Your task to perform on an android device: open the mobile data screen to see how much data has been used Image 0: 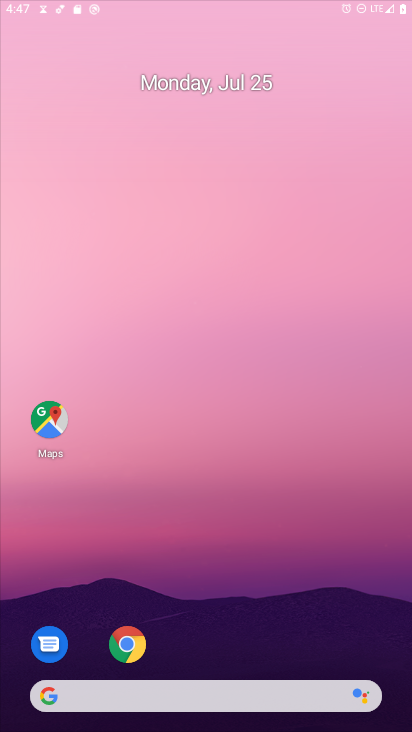
Step 0: press home button
Your task to perform on an android device: open the mobile data screen to see how much data has been used Image 1: 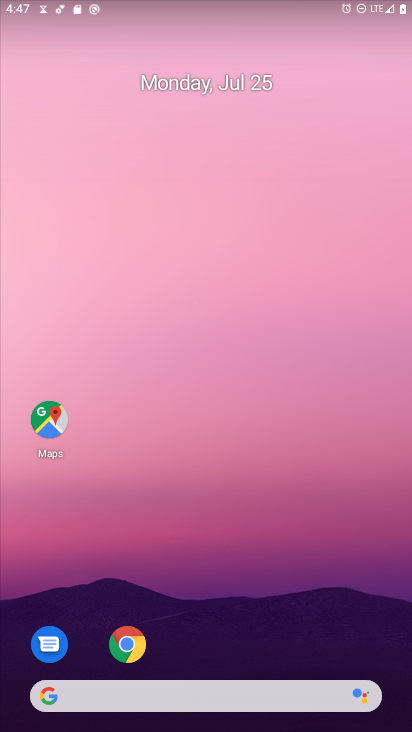
Step 1: press home button
Your task to perform on an android device: open the mobile data screen to see how much data has been used Image 2: 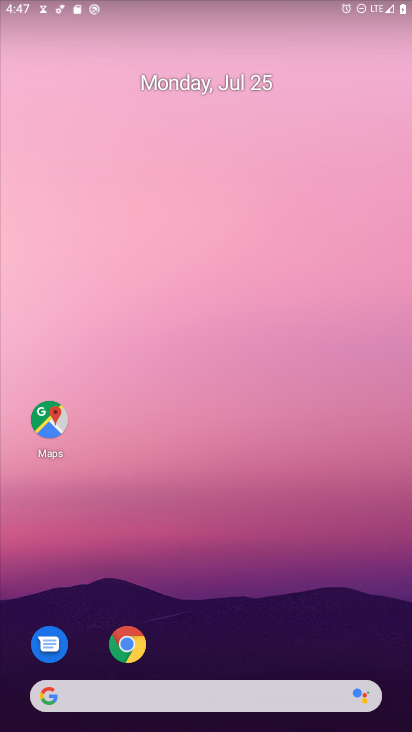
Step 2: drag from (267, 607) to (249, 109)
Your task to perform on an android device: open the mobile data screen to see how much data has been used Image 3: 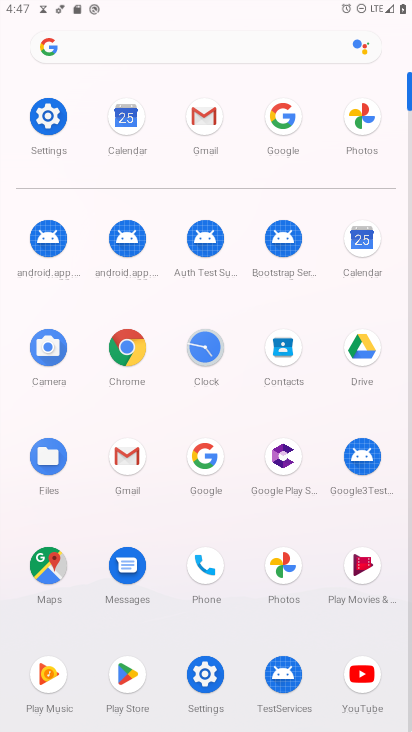
Step 3: click (56, 121)
Your task to perform on an android device: open the mobile data screen to see how much data has been used Image 4: 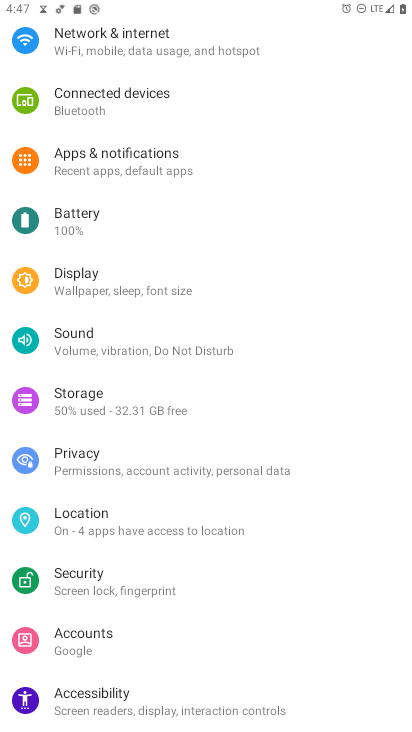
Step 4: click (157, 47)
Your task to perform on an android device: open the mobile data screen to see how much data has been used Image 5: 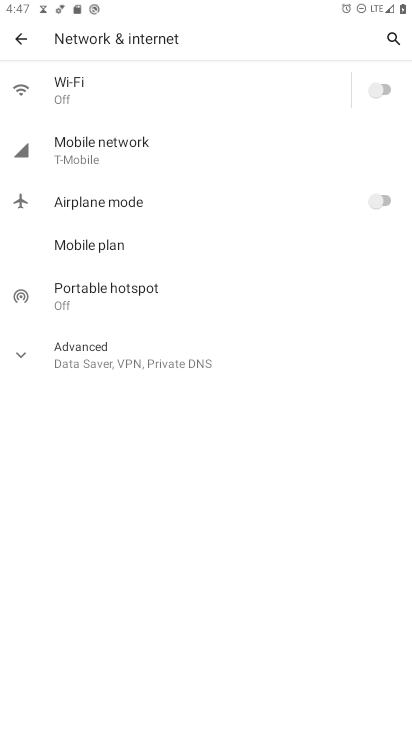
Step 5: click (112, 148)
Your task to perform on an android device: open the mobile data screen to see how much data has been used Image 6: 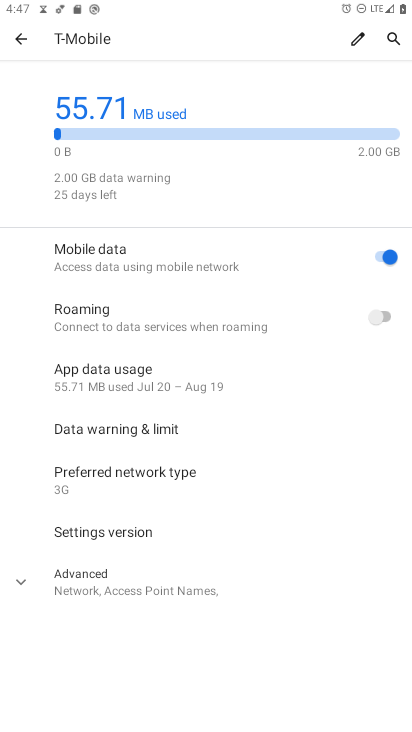
Step 6: task complete